Your task to perform on an android device: Open Chrome and go to settings Image 0: 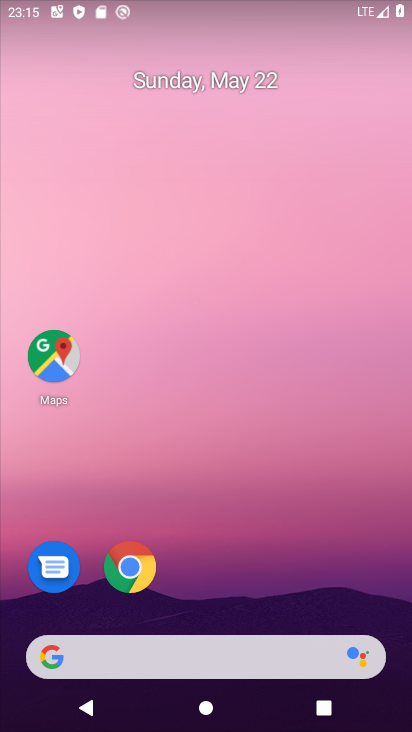
Step 0: drag from (169, 564) to (220, 44)
Your task to perform on an android device: Open Chrome and go to settings Image 1: 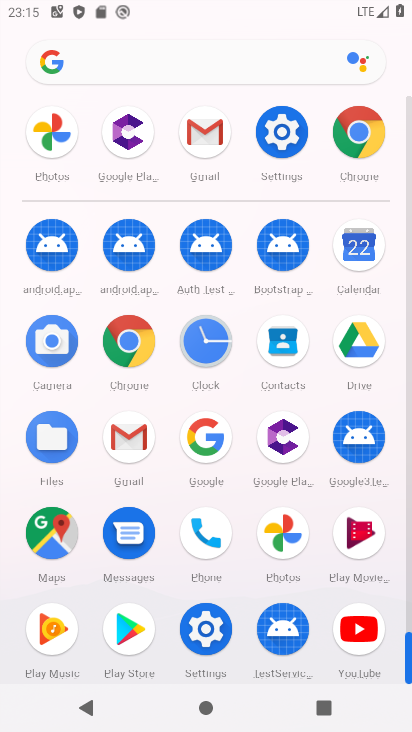
Step 1: click (133, 347)
Your task to perform on an android device: Open Chrome and go to settings Image 2: 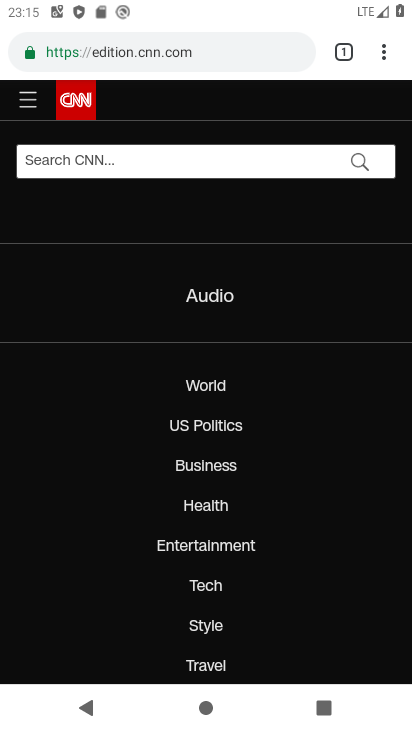
Step 2: task complete